Your task to perform on an android device: Show me recent news Image 0: 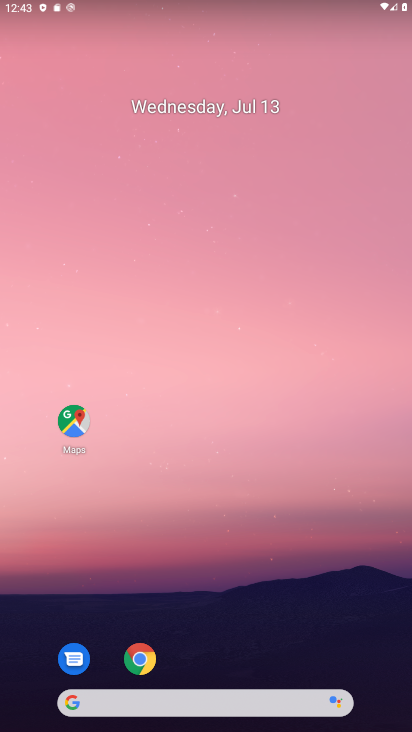
Step 0: drag from (181, 653) to (279, 64)
Your task to perform on an android device: Show me recent news Image 1: 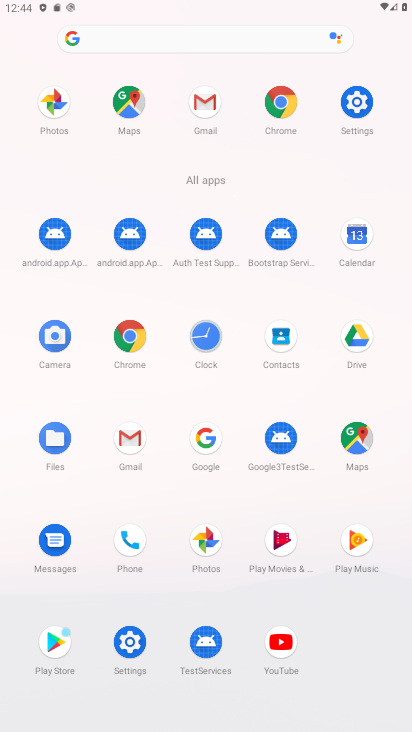
Step 1: click (142, 41)
Your task to perform on an android device: Show me recent news Image 2: 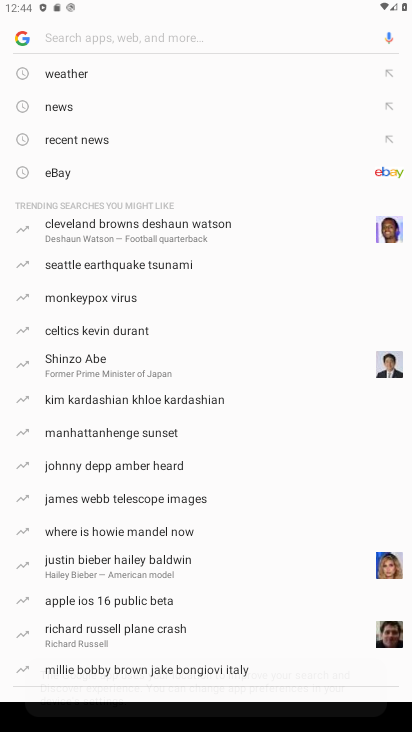
Step 2: click (87, 137)
Your task to perform on an android device: Show me recent news Image 3: 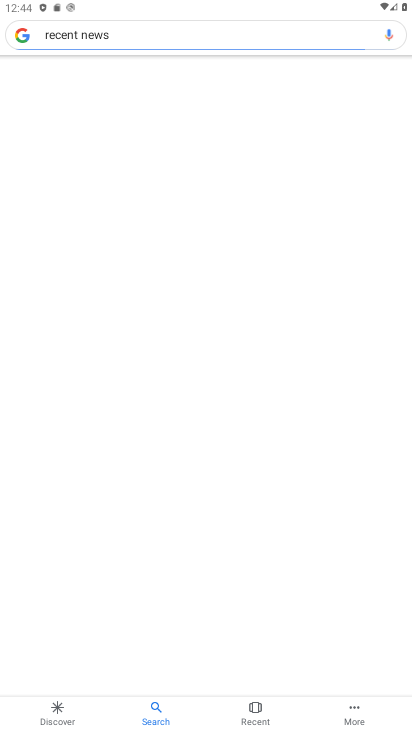
Step 3: task complete